Your task to perform on an android device: Show me recent news Image 0: 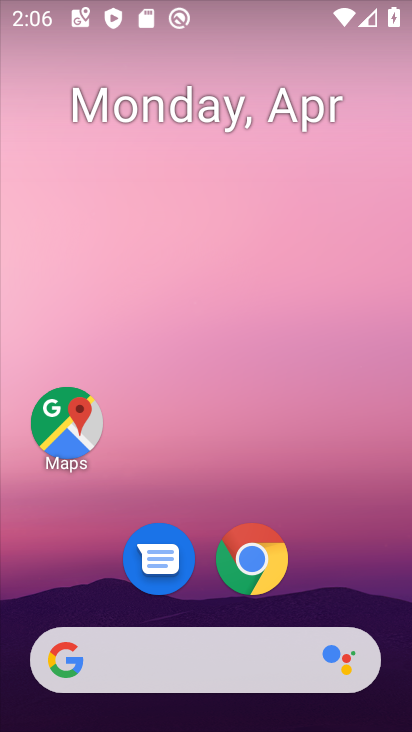
Step 0: drag from (321, 558) to (284, 161)
Your task to perform on an android device: Show me recent news Image 1: 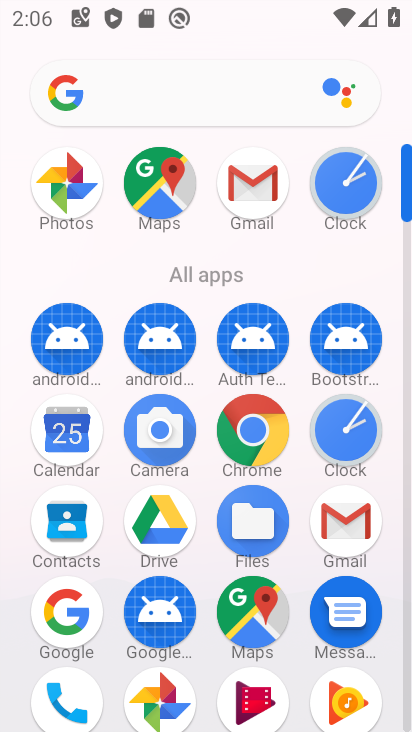
Step 1: click (260, 416)
Your task to perform on an android device: Show me recent news Image 2: 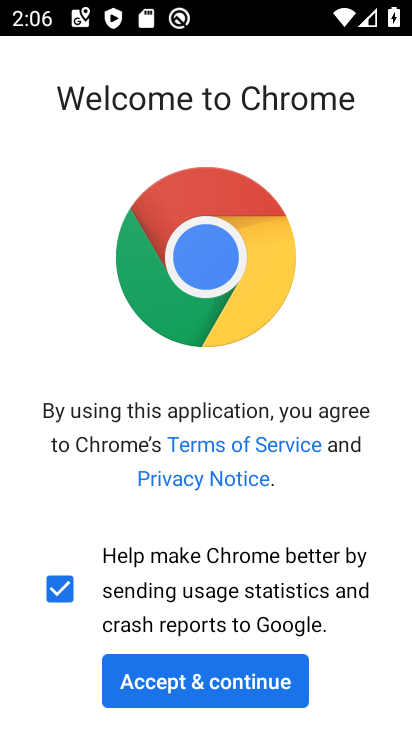
Step 2: click (185, 670)
Your task to perform on an android device: Show me recent news Image 3: 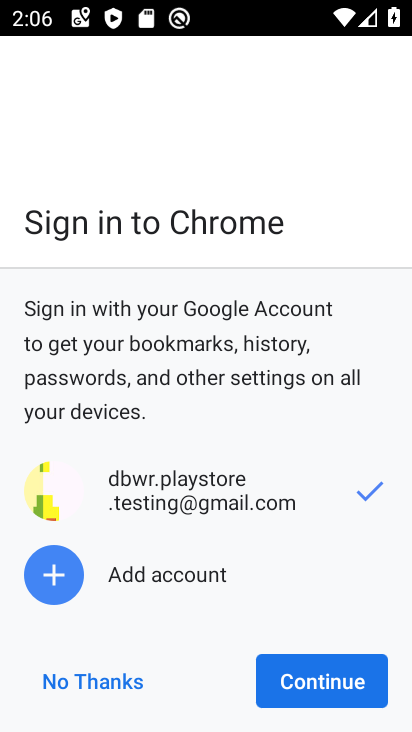
Step 3: click (286, 687)
Your task to perform on an android device: Show me recent news Image 4: 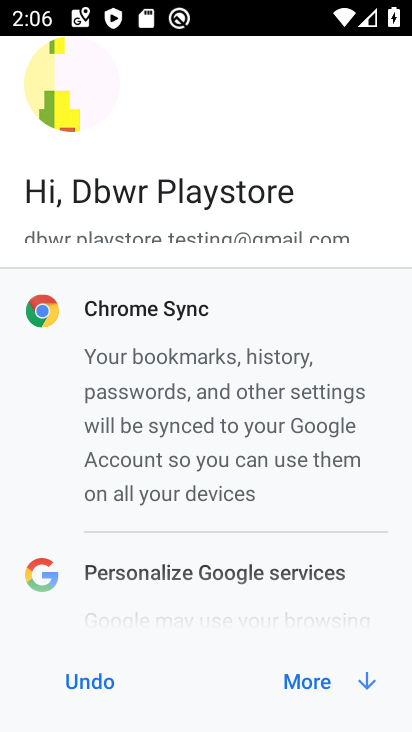
Step 4: click (286, 687)
Your task to perform on an android device: Show me recent news Image 5: 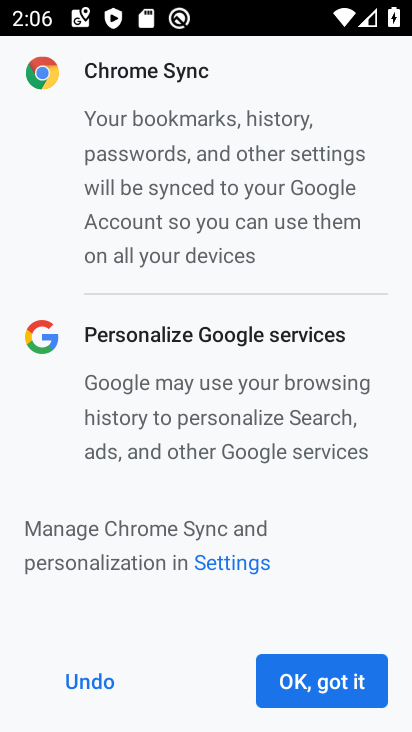
Step 5: click (286, 687)
Your task to perform on an android device: Show me recent news Image 6: 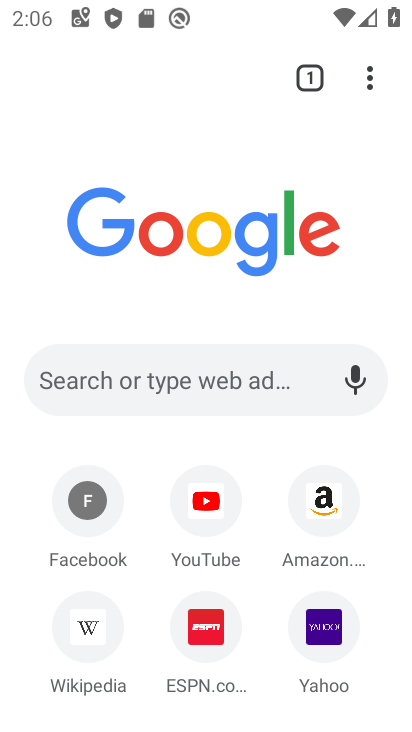
Step 6: click (157, 347)
Your task to perform on an android device: Show me recent news Image 7: 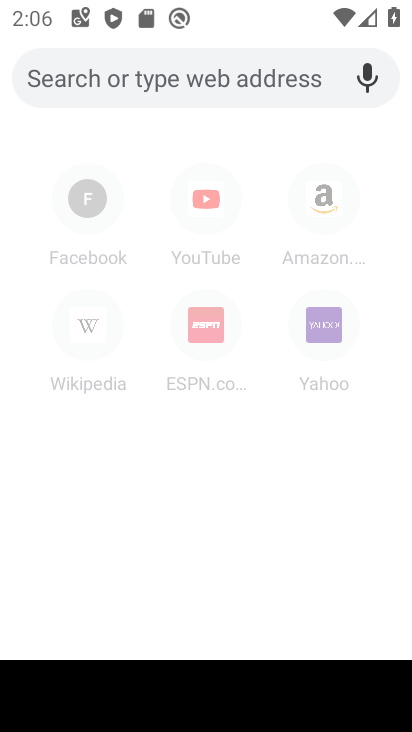
Step 7: type "recent news"
Your task to perform on an android device: Show me recent news Image 8: 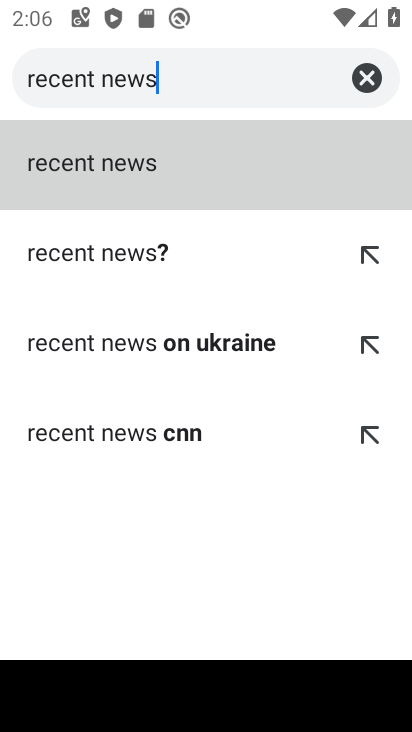
Step 8: click (128, 165)
Your task to perform on an android device: Show me recent news Image 9: 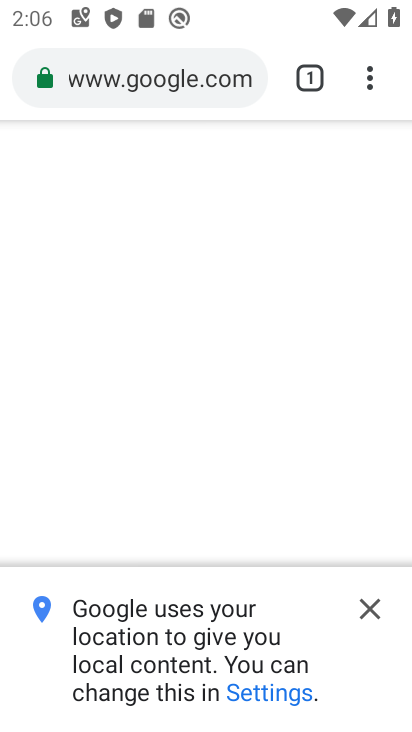
Step 9: click (374, 610)
Your task to perform on an android device: Show me recent news Image 10: 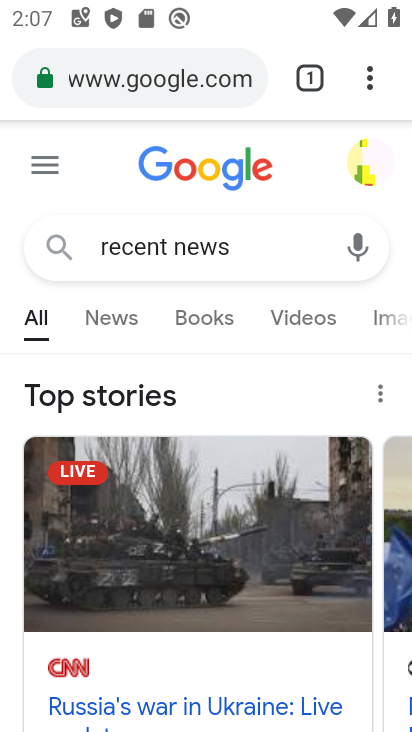
Step 10: task complete